Your task to perform on an android device: Add razer naga to the cart on target.com, then select checkout. Image 0: 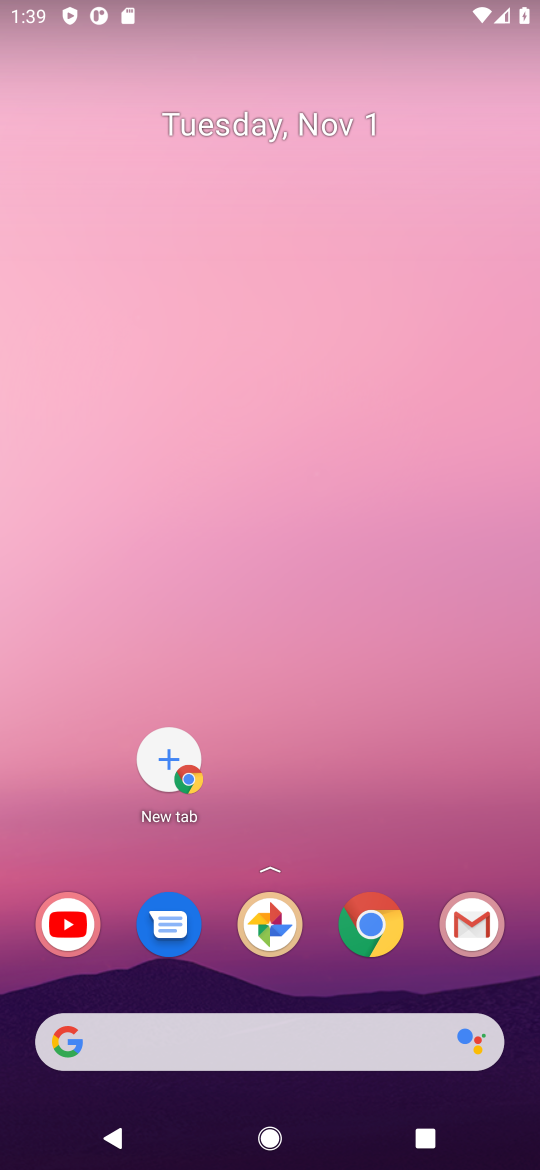
Step 0: click (374, 921)
Your task to perform on an android device: Add razer naga to the cart on target.com, then select checkout. Image 1: 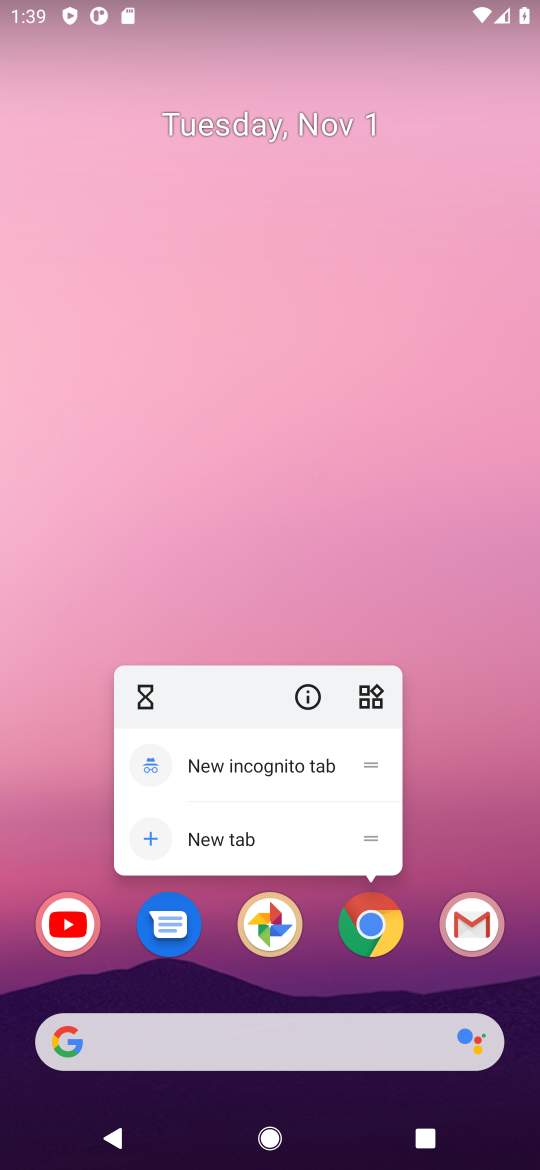
Step 1: click (372, 916)
Your task to perform on an android device: Add razer naga to the cart on target.com, then select checkout. Image 2: 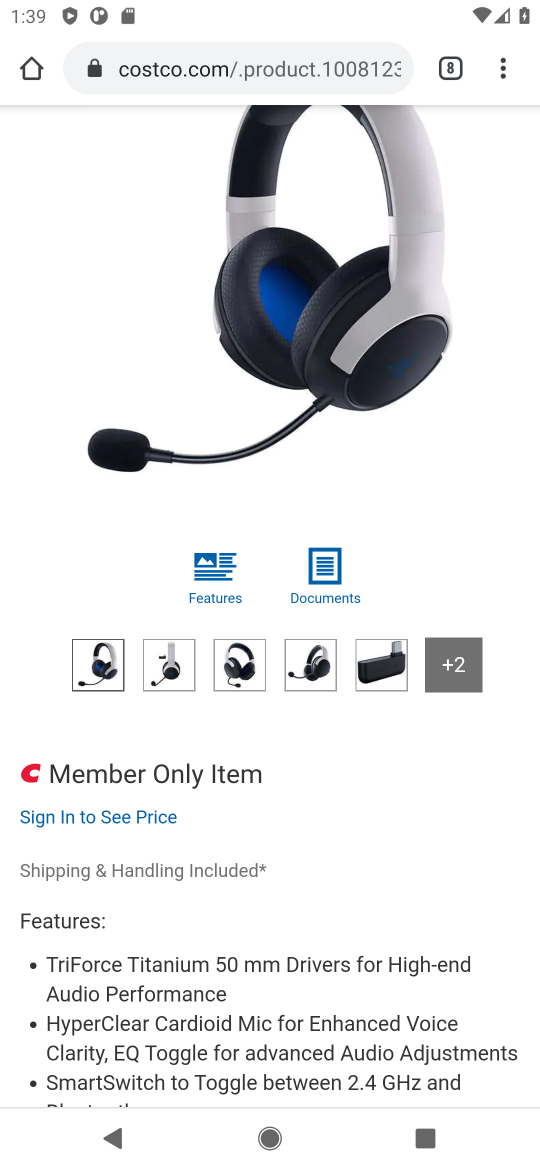
Step 2: click (282, 69)
Your task to perform on an android device: Add razer naga to the cart on target.com, then select checkout. Image 3: 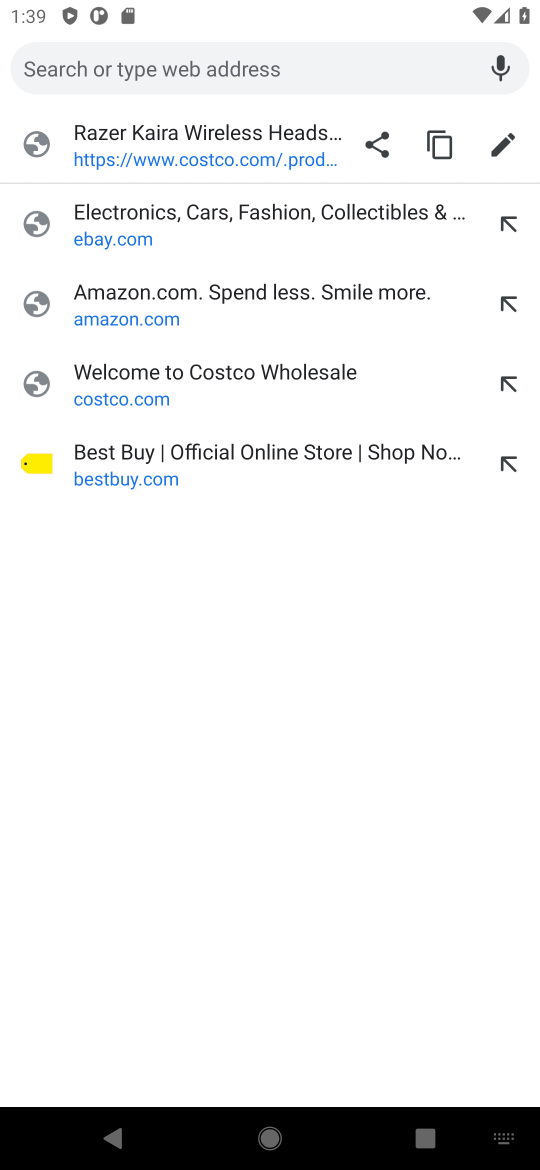
Step 3: type "target .com"
Your task to perform on an android device: Add razer naga to the cart on target.com, then select checkout. Image 4: 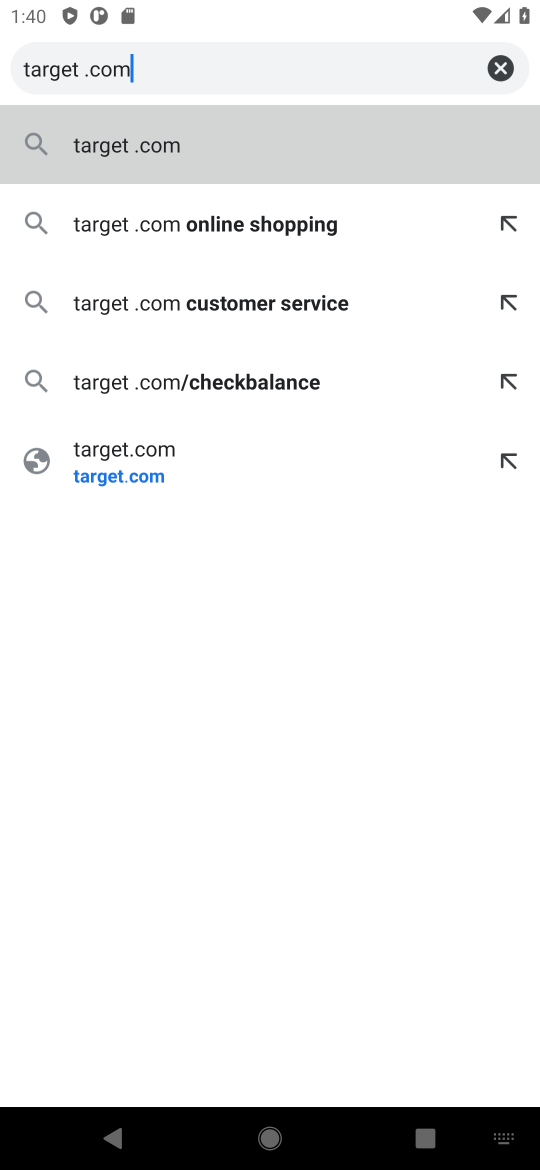
Step 4: click (165, 465)
Your task to perform on an android device: Add razer naga to the cart on target.com, then select checkout. Image 5: 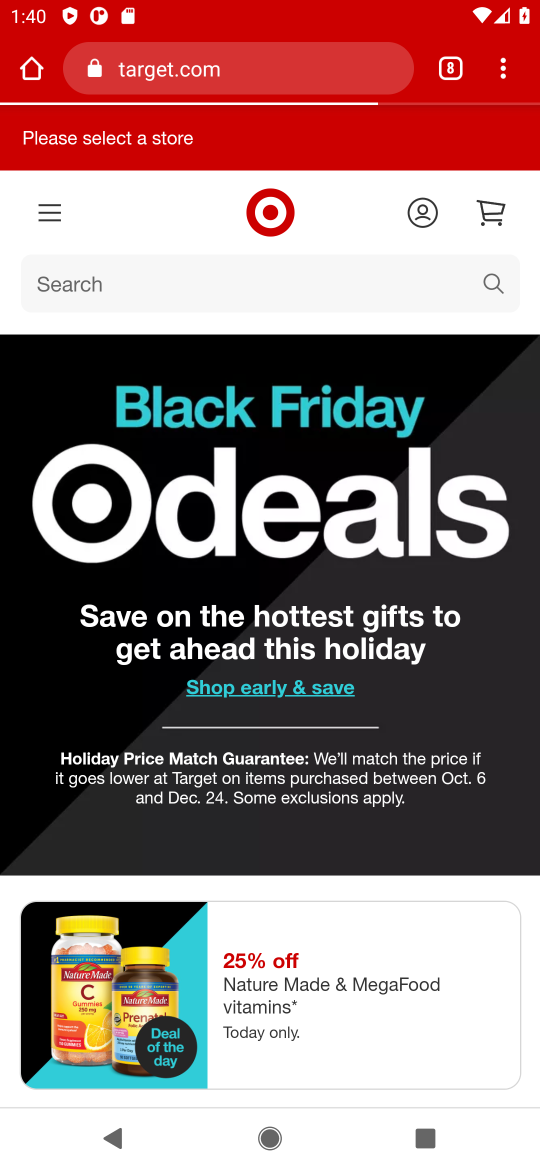
Step 5: click (184, 281)
Your task to perform on an android device: Add razer naga to the cart on target.com, then select checkout. Image 6: 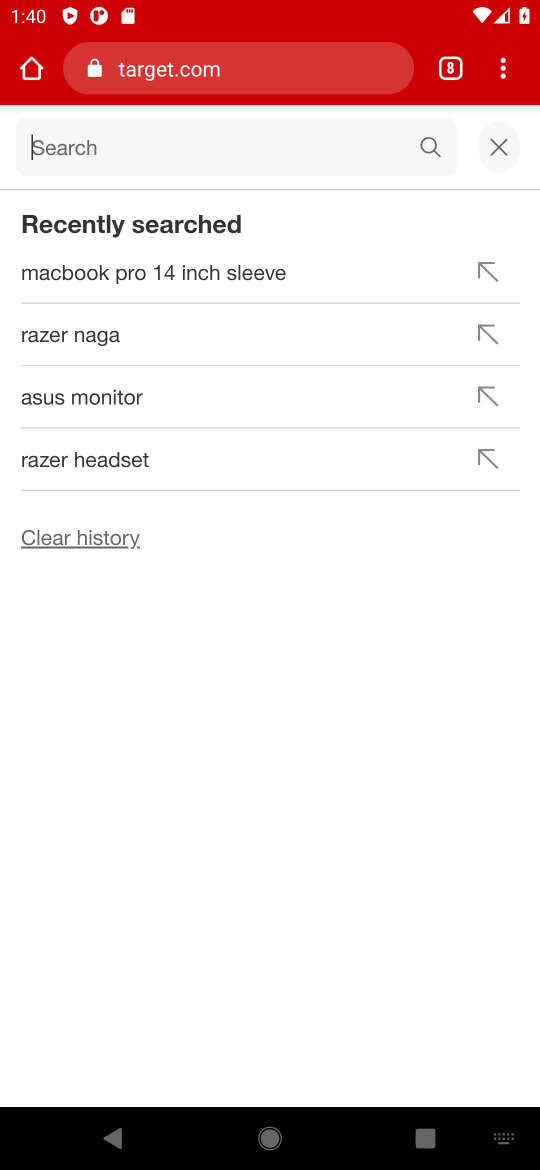
Step 6: type "razer naga"
Your task to perform on an android device: Add razer naga to the cart on target.com, then select checkout. Image 7: 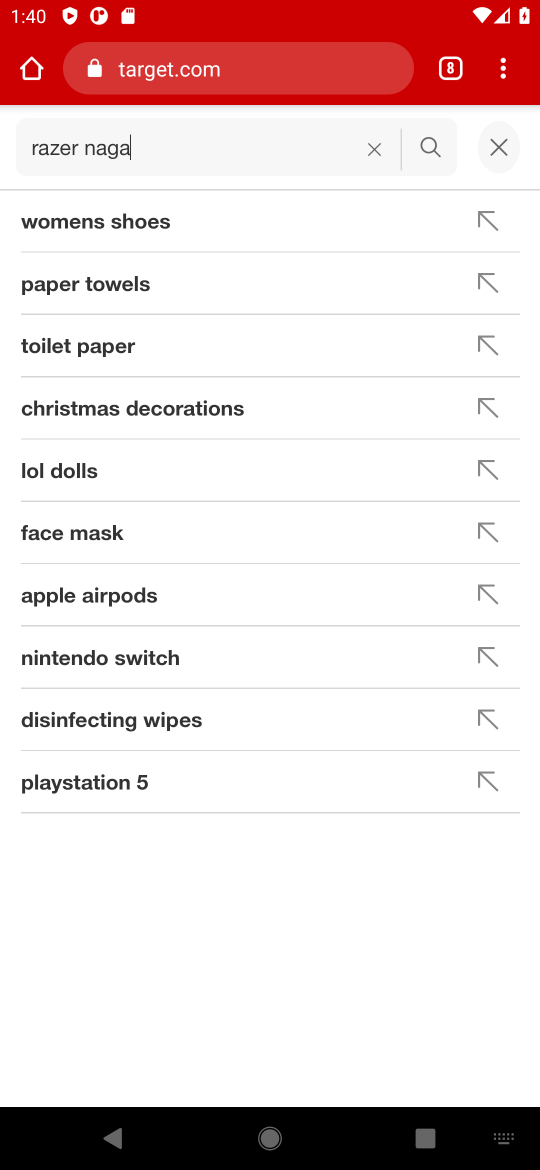
Step 7: type ""
Your task to perform on an android device: Add razer naga to the cart on target.com, then select checkout. Image 8: 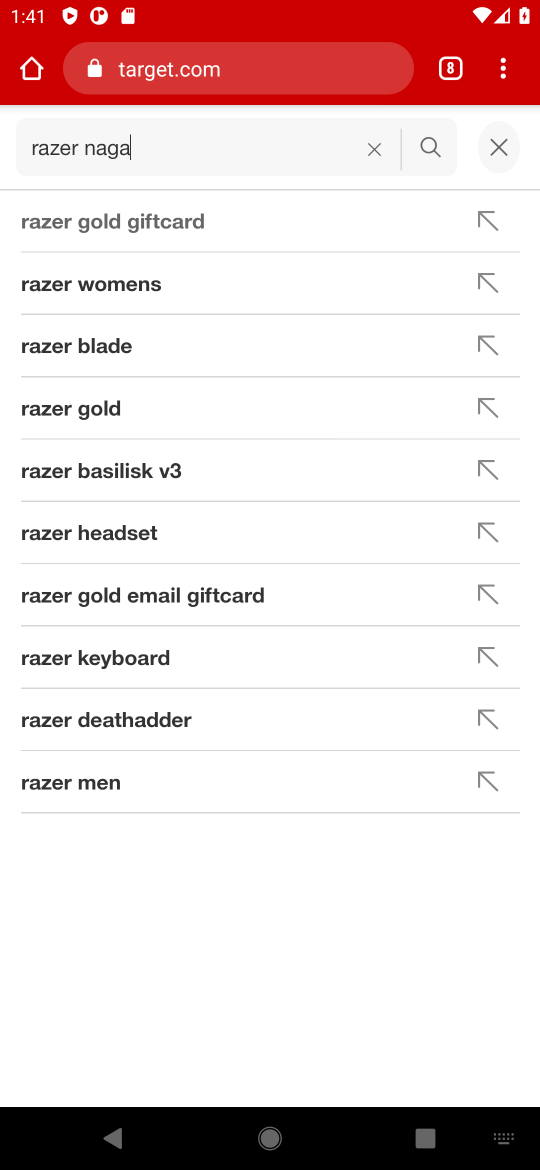
Step 8: click (419, 142)
Your task to perform on an android device: Add razer naga to the cart on target.com, then select checkout. Image 9: 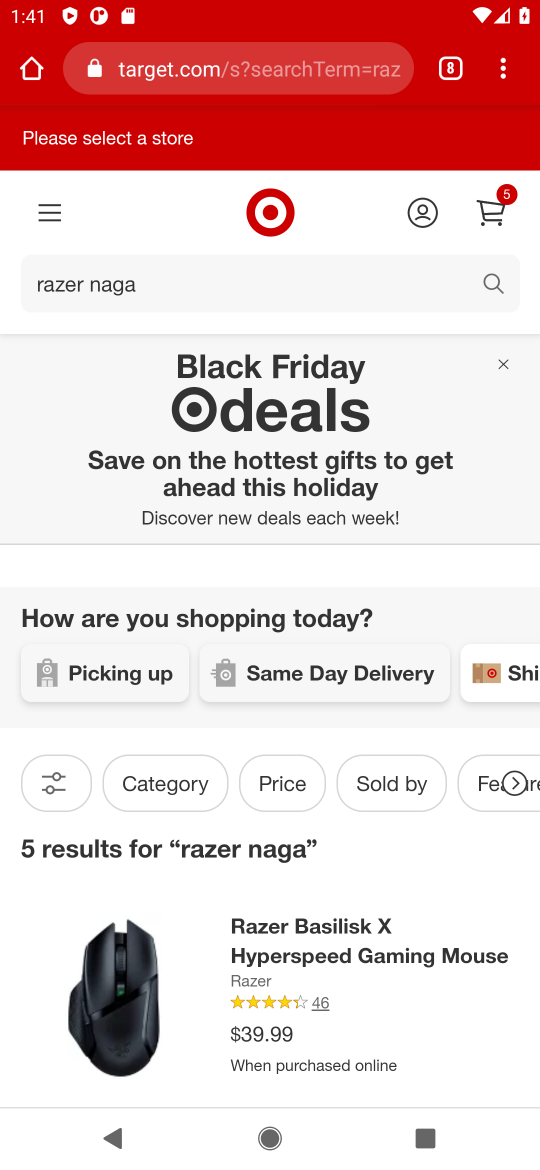
Step 9: drag from (391, 955) to (374, 283)
Your task to perform on an android device: Add razer naga to the cart on target.com, then select checkout. Image 10: 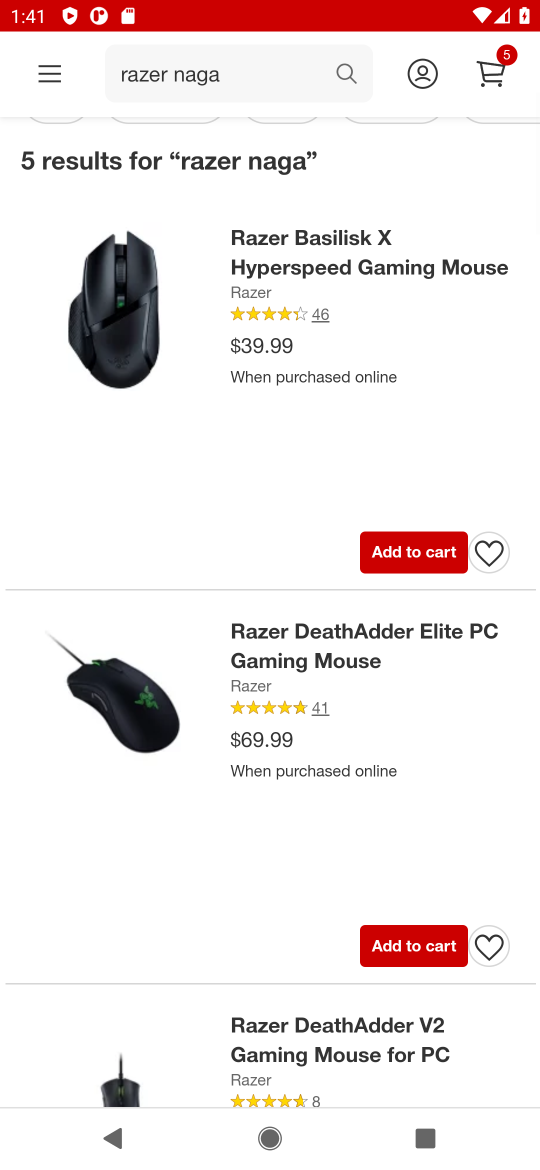
Step 10: drag from (240, 399) to (238, 938)
Your task to perform on an android device: Add razer naga to the cart on target.com, then select checkout. Image 11: 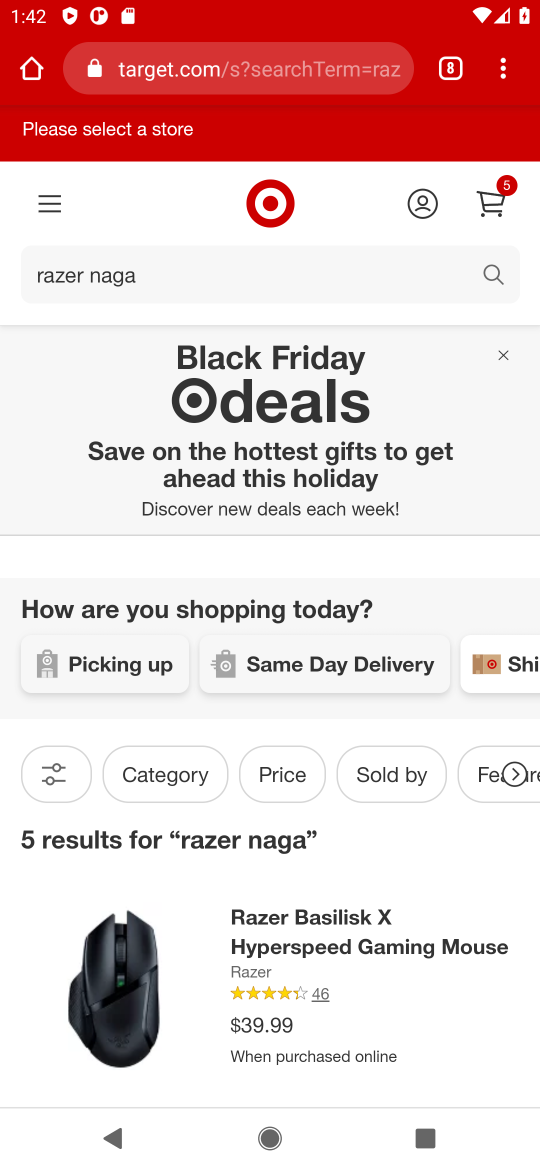
Step 11: click (500, 270)
Your task to perform on an android device: Add razer naga to the cart on target.com, then select checkout. Image 12: 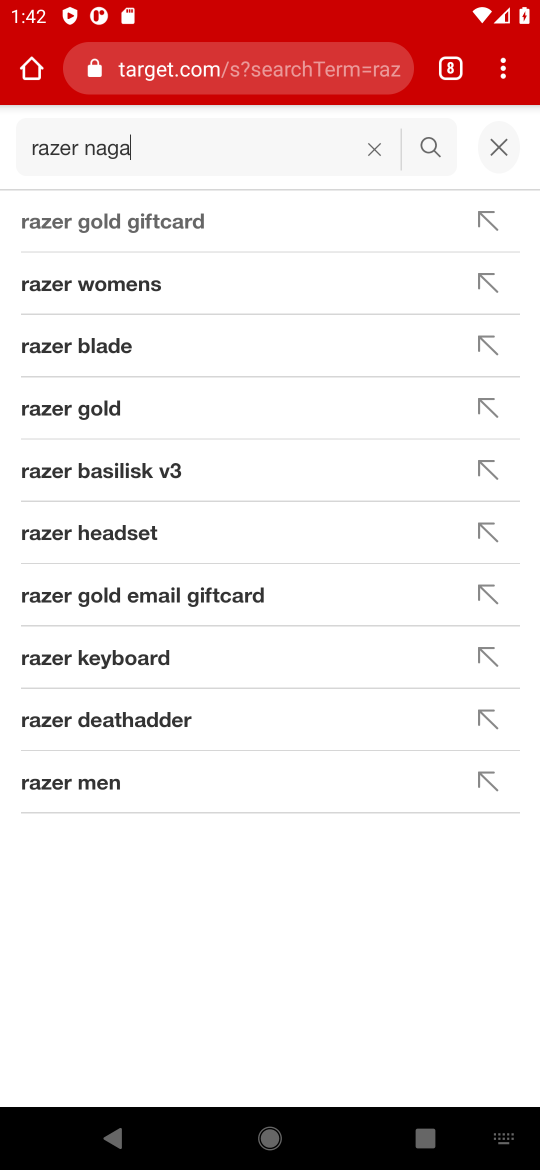
Step 12: click (38, 780)
Your task to perform on an android device: Add razer naga to the cart on target.com, then select checkout. Image 13: 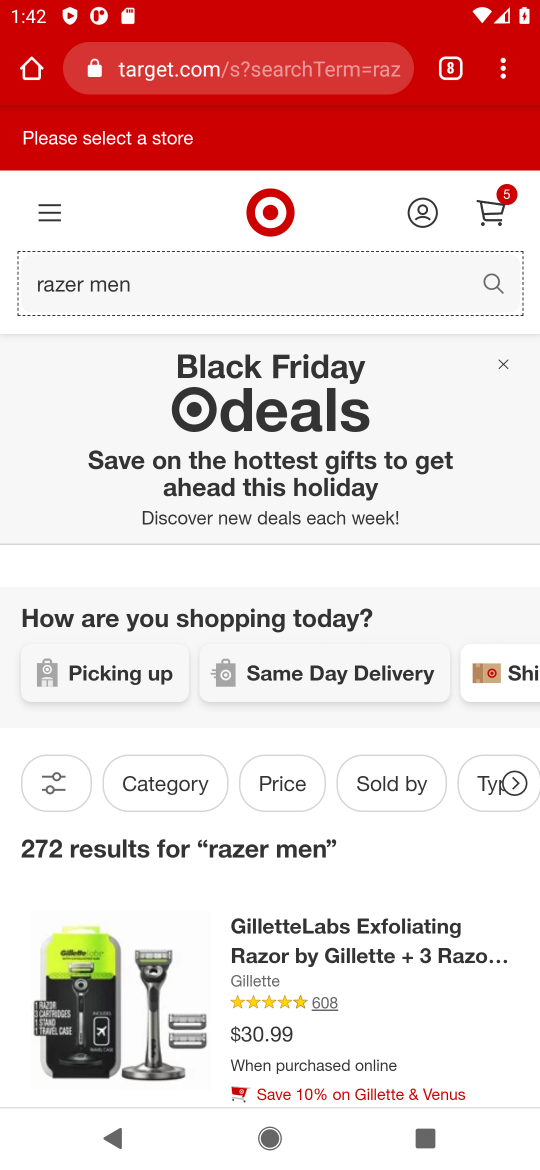
Step 13: drag from (328, 996) to (393, 315)
Your task to perform on an android device: Add razer naga to the cart on target.com, then select checkout. Image 14: 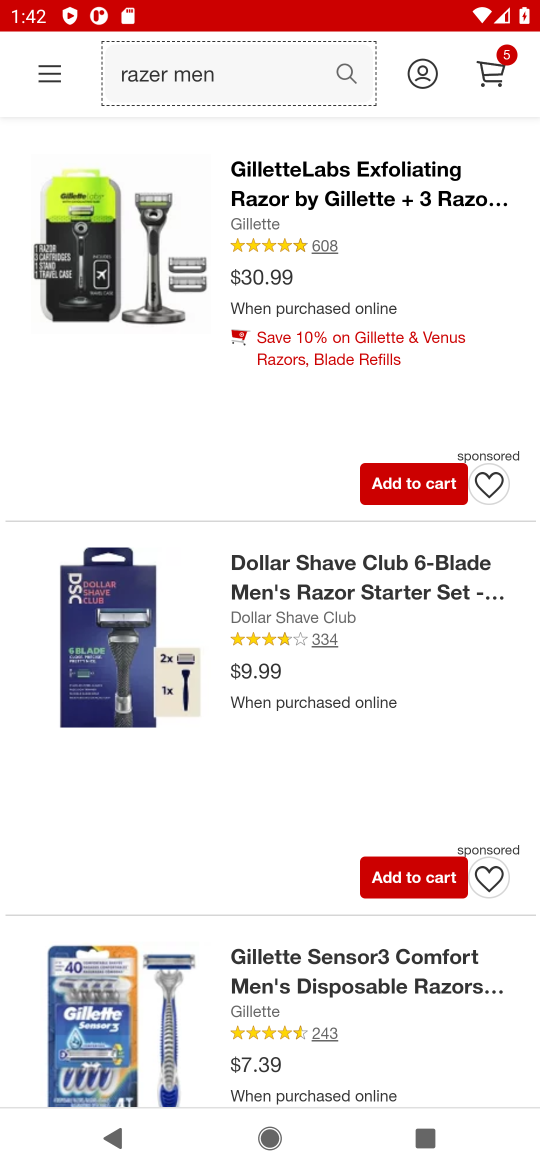
Step 14: click (74, 707)
Your task to perform on an android device: Add razer naga to the cart on target.com, then select checkout. Image 15: 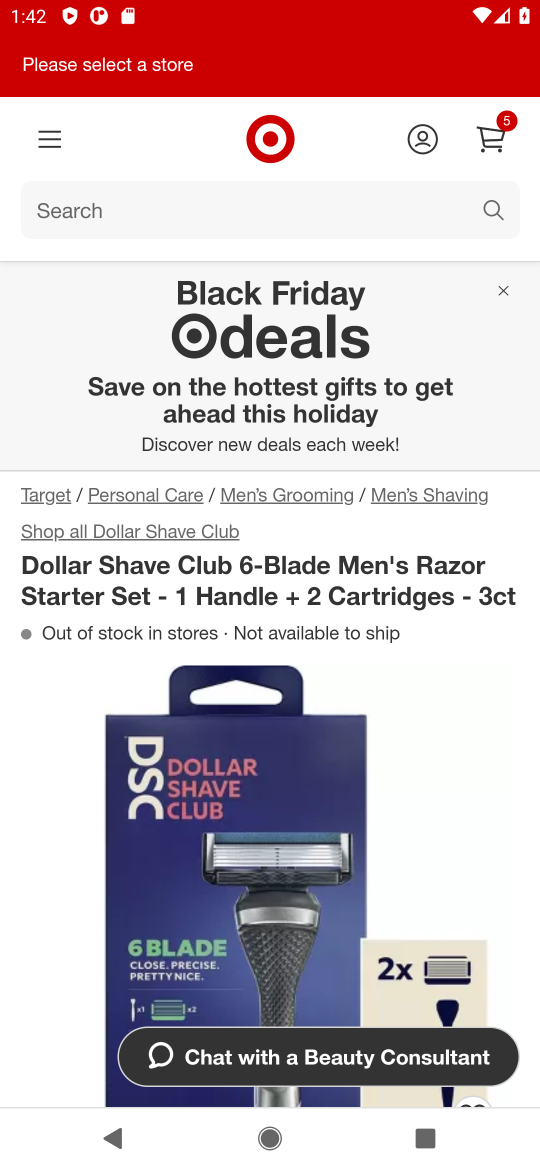
Step 15: drag from (254, 869) to (370, 306)
Your task to perform on an android device: Add razer naga to the cart on target.com, then select checkout. Image 16: 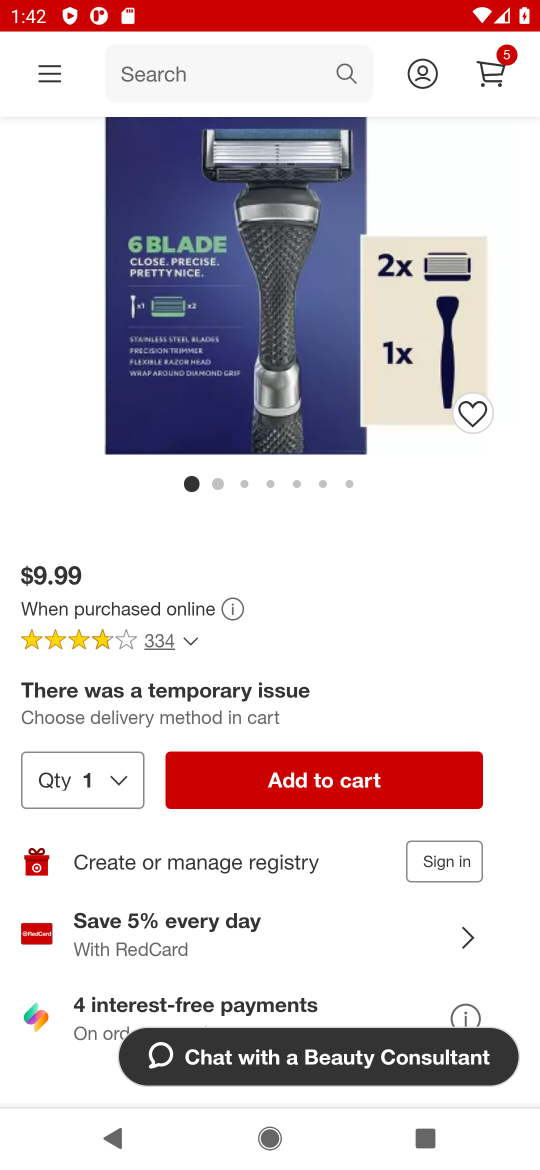
Step 16: click (271, 780)
Your task to perform on an android device: Add razer naga to the cart on target.com, then select checkout. Image 17: 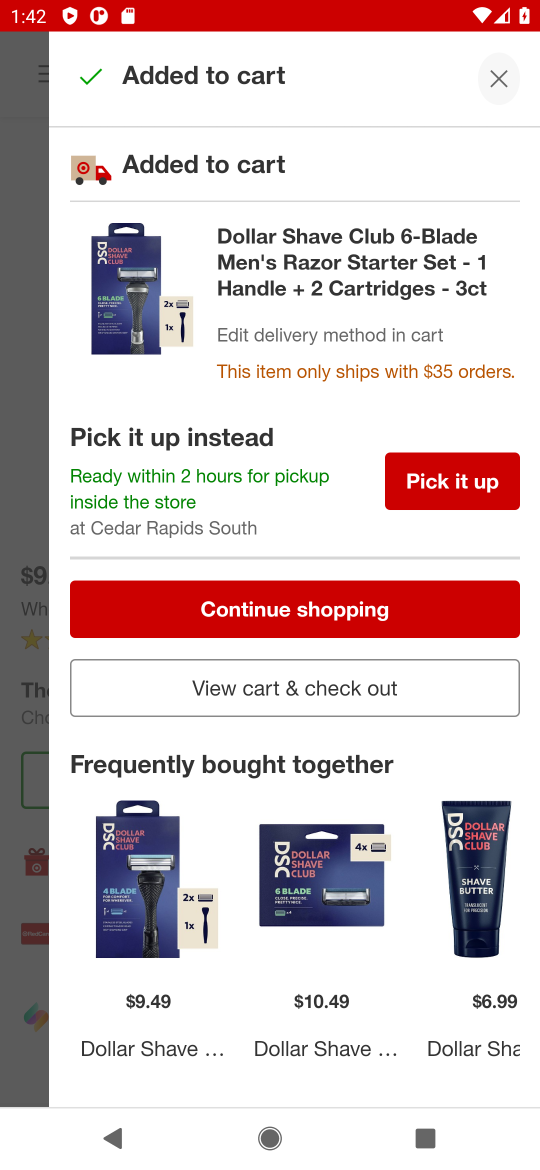
Step 17: click (257, 691)
Your task to perform on an android device: Add razer naga to the cart on target.com, then select checkout. Image 18: 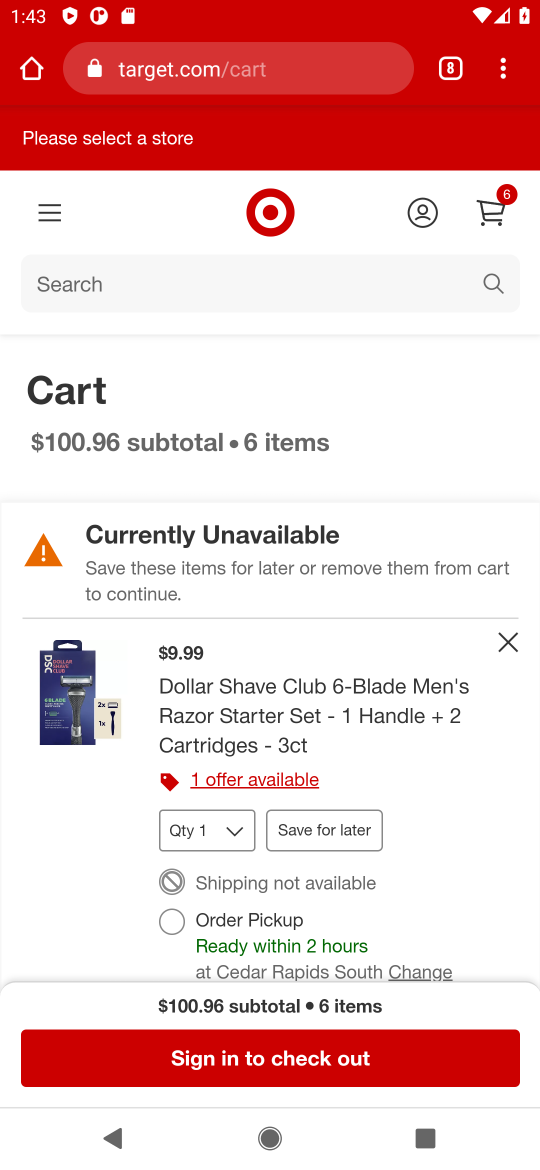
Step 18: drag from (340, 869) to (343, 438)
Your task to perform on an android device: Add razer naga to the cart on target.com, then select checkout. Image 19: 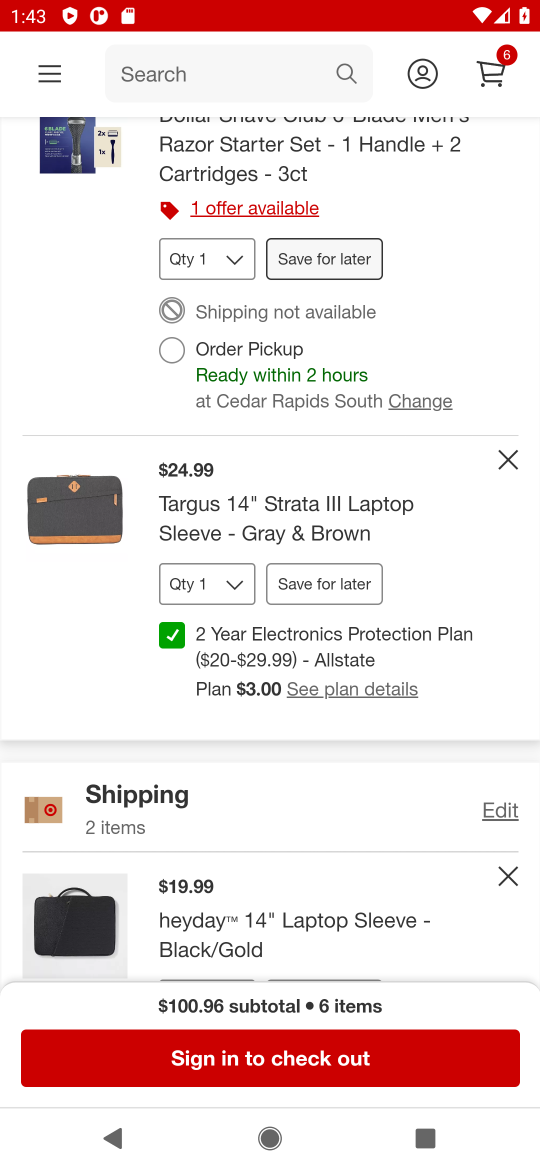
Step 19: click (503, 866)
Your task to perform on an android device: Add razer naga to the cart on target.com, then select checkout. Image 20: 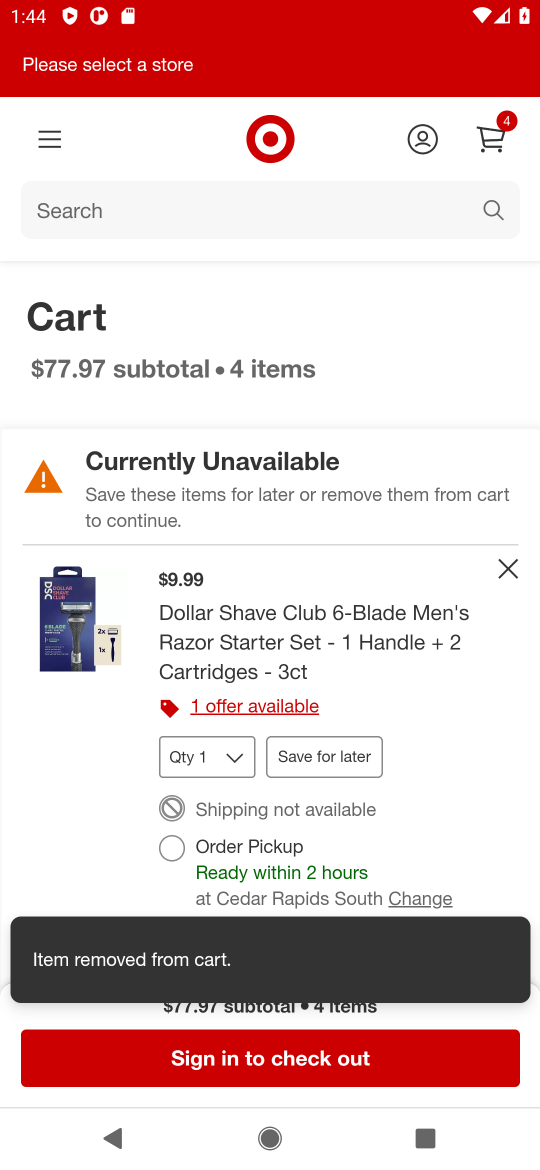
Step 20: drag from (337, 826) to (438, 203)
Your task to perform on an android device: Add razer naga to the cart on target.com, then select checkout. Image 21: 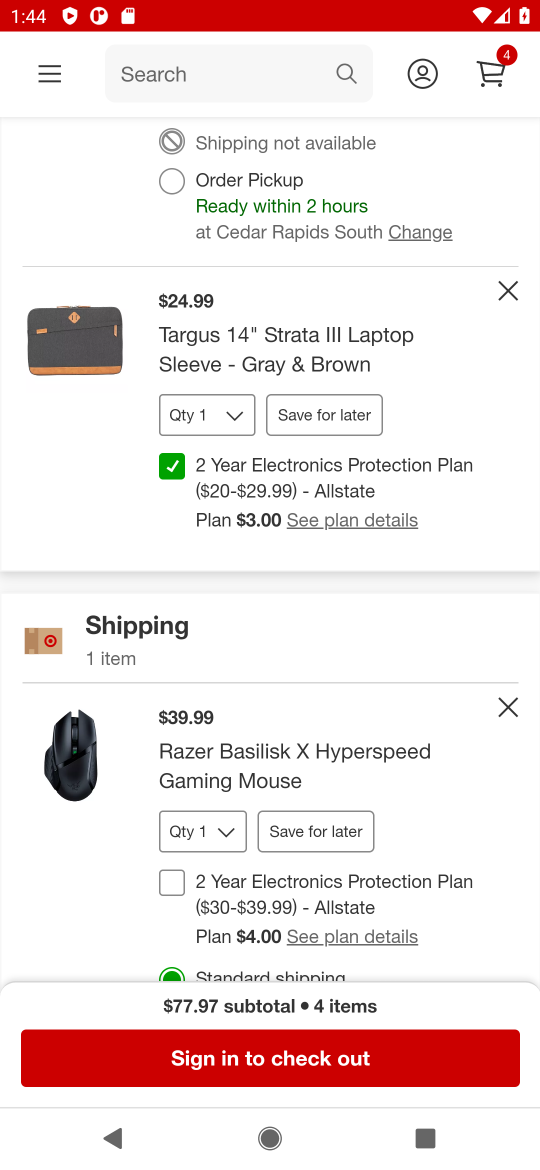
Step 21: click (223, 1067)
Your task to perform on an android device: Add razer naga to the cart on target.com, then select checkout. Image 22: 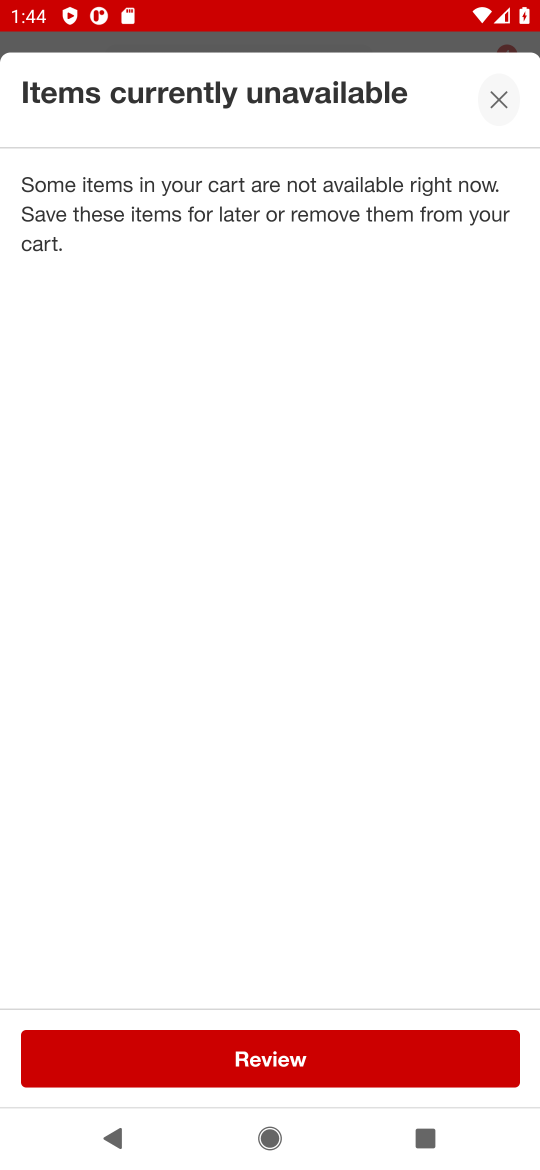
Step 22: click (504, 94)
Your task to perform on an android device: Add razer naga to the cart on target.com, then select checkout. Image 23: 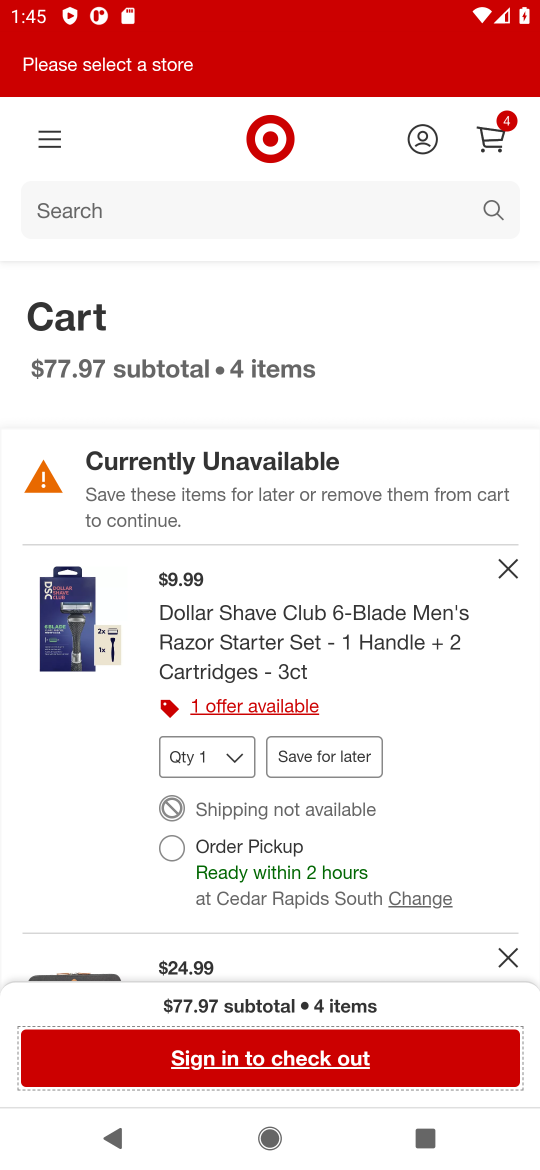
Step 23: click (338, 1059)
Your task to perform on an android device: Add razer naga to the cart on target.com, then select checkout. Image 24: 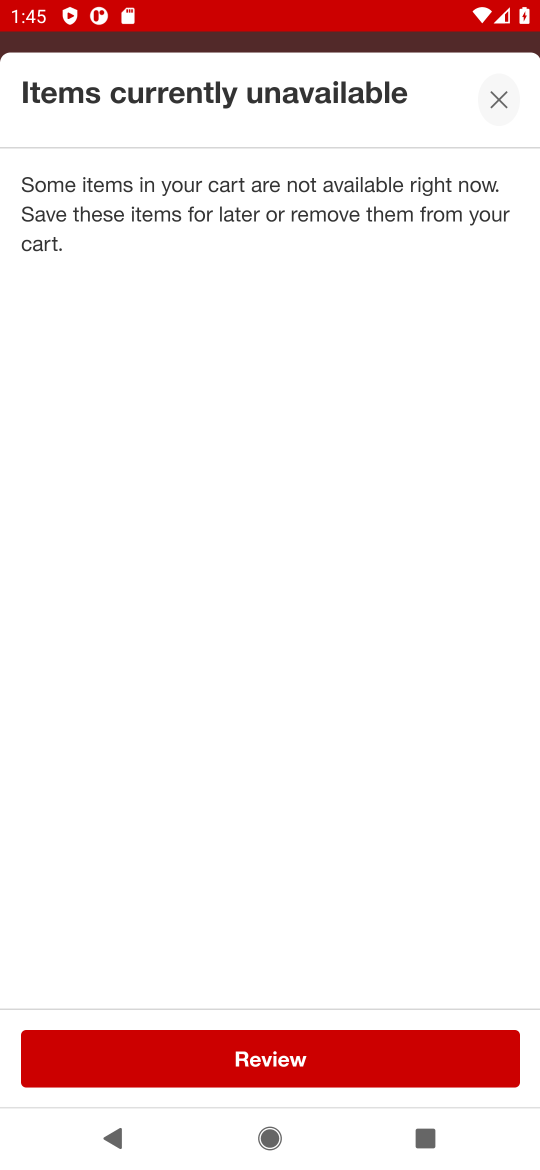
Step 24: click (498, 102)
Your task to perform on an android device: Add razer naga to the cart on target.com, then select checkout. Image 25: 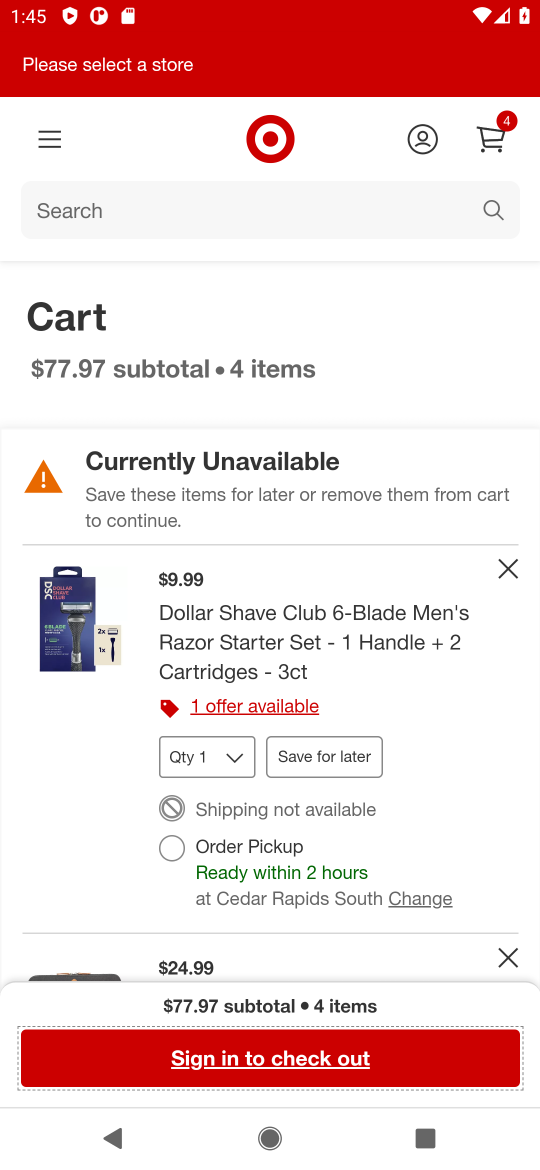
Step 25: press home button
Your task to perform on an android device: Add razer naga to the cart on target.com, then select checkout. Image 26: 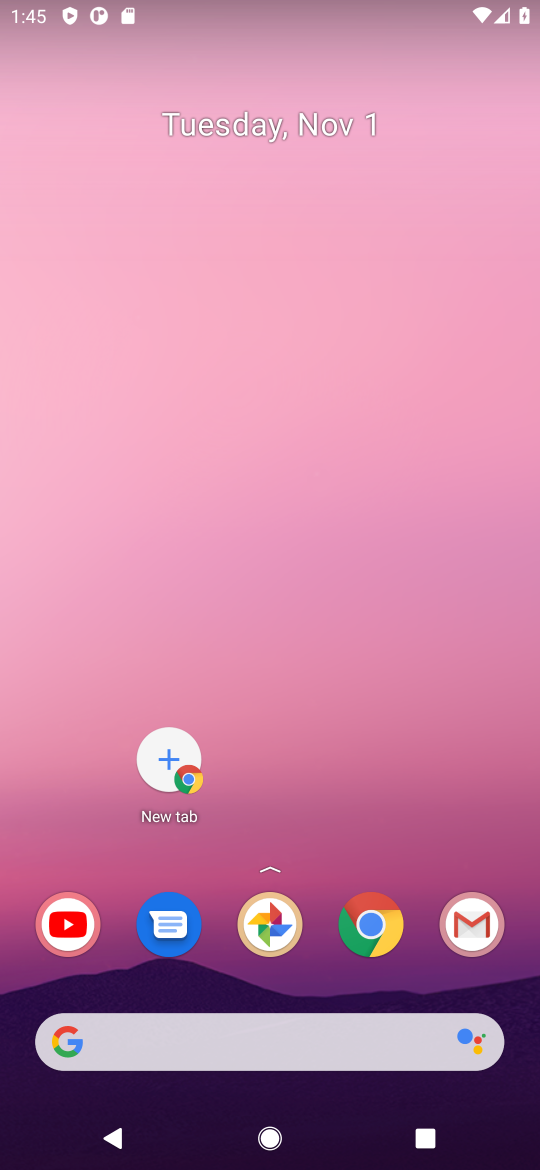
Step 26: click (373, 914)
Your task to perform on an android device: Add razer naga to the cart on target.com, then select checkout. Image 27: 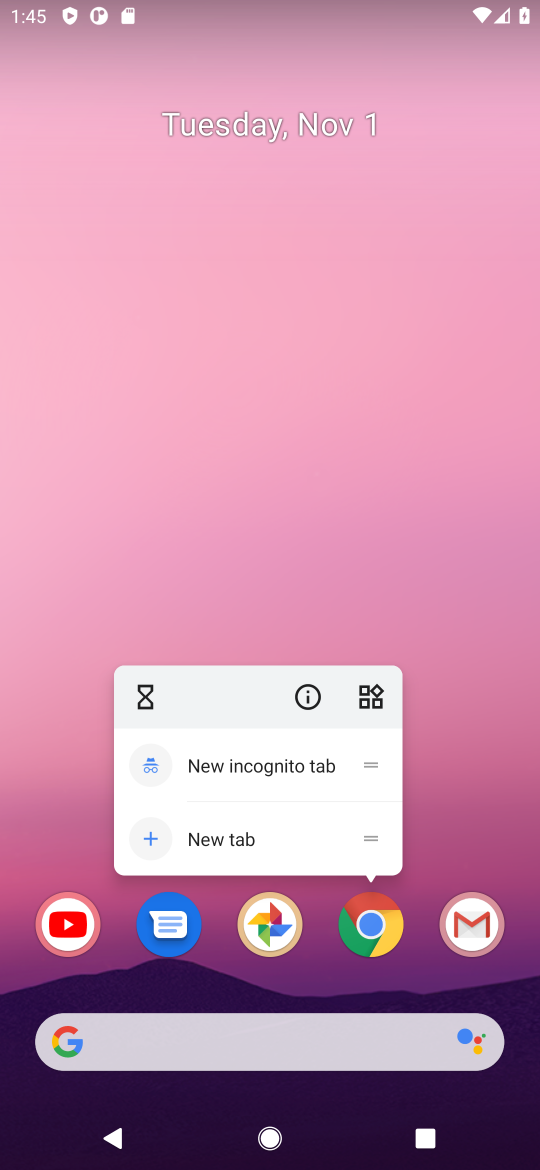
Step 27: press home button
Your task to perform on an android device: Add razer naga to the cart on target.com, then select checkout. Image 28: 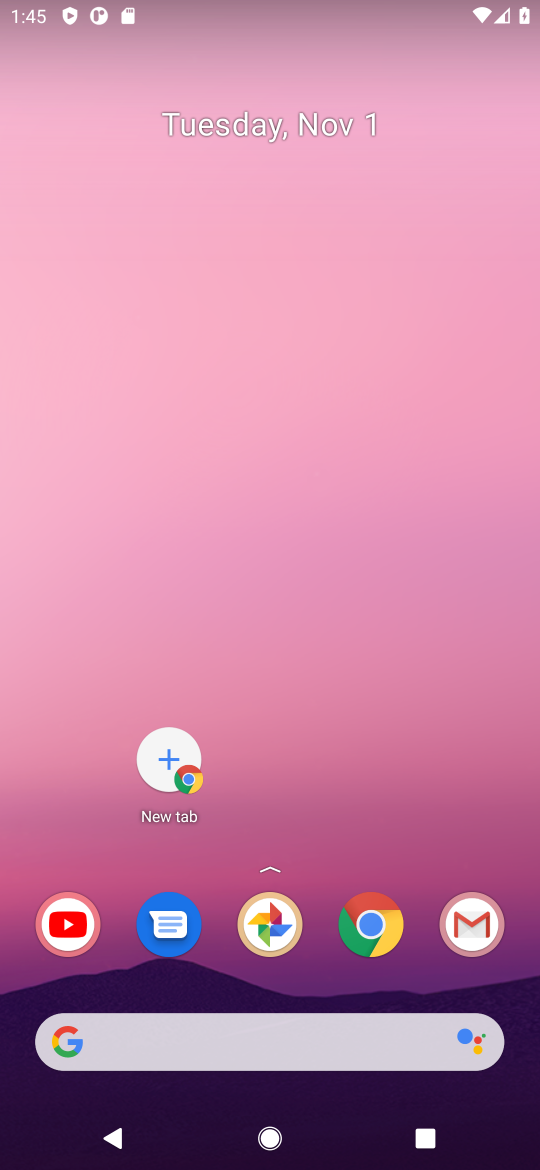
Step 28: click (382, 935)
Your task to perform on an android device: Add razer naga to the cart on target.com, then select checkout. Image 29: 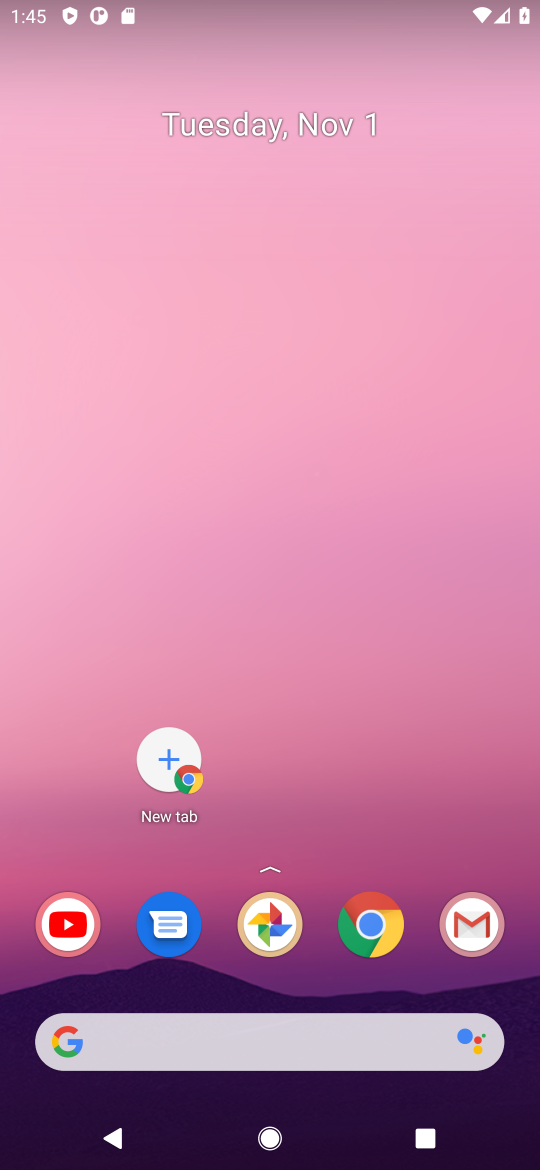
Step 29: click (384, 934)
Your task to perform on an android device: Add razer naga to the cart on target.com, then select checkout. Image 30: 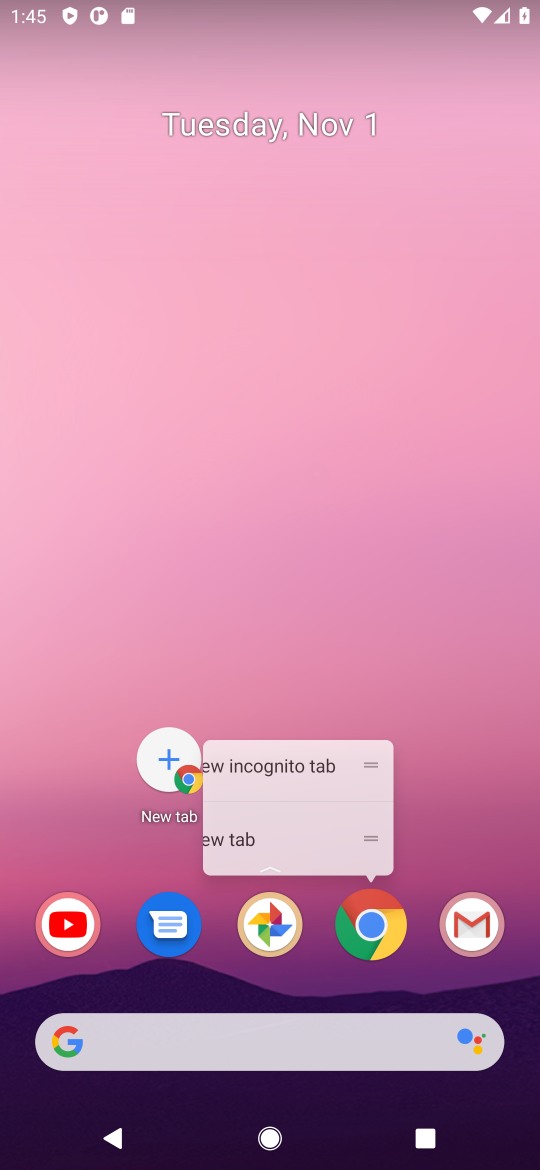
Step 30: click (382, 934)
Your task to perform on an android device: Add razer naga to the cart on target.com, then select checkout. Image 31: 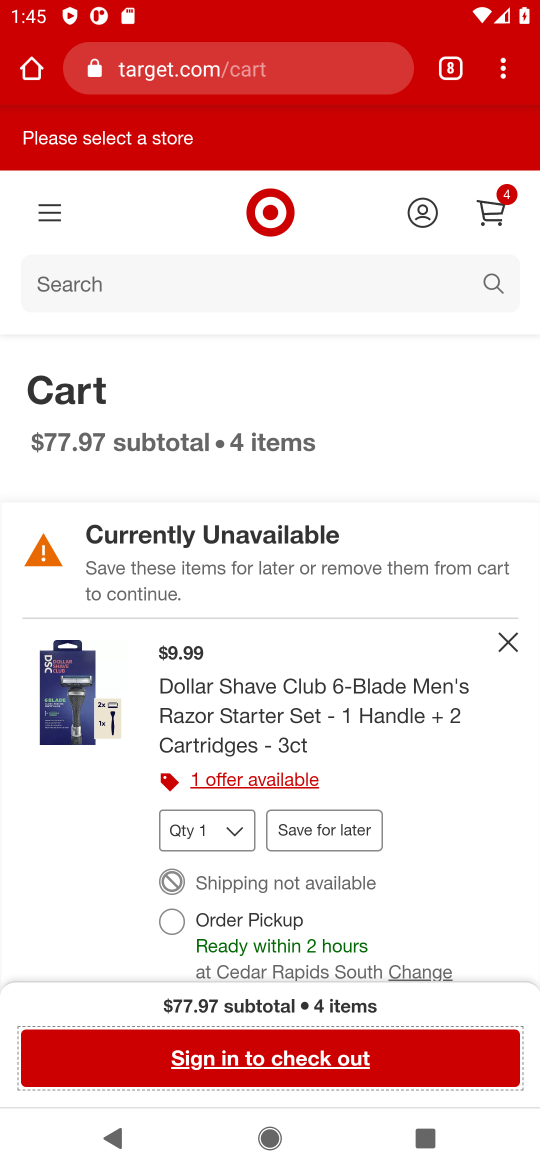
Step 31: click (182, 72)
Your task to perform on an android device: Add razer naga to the cart on target.com, then select checkout. Image 32: 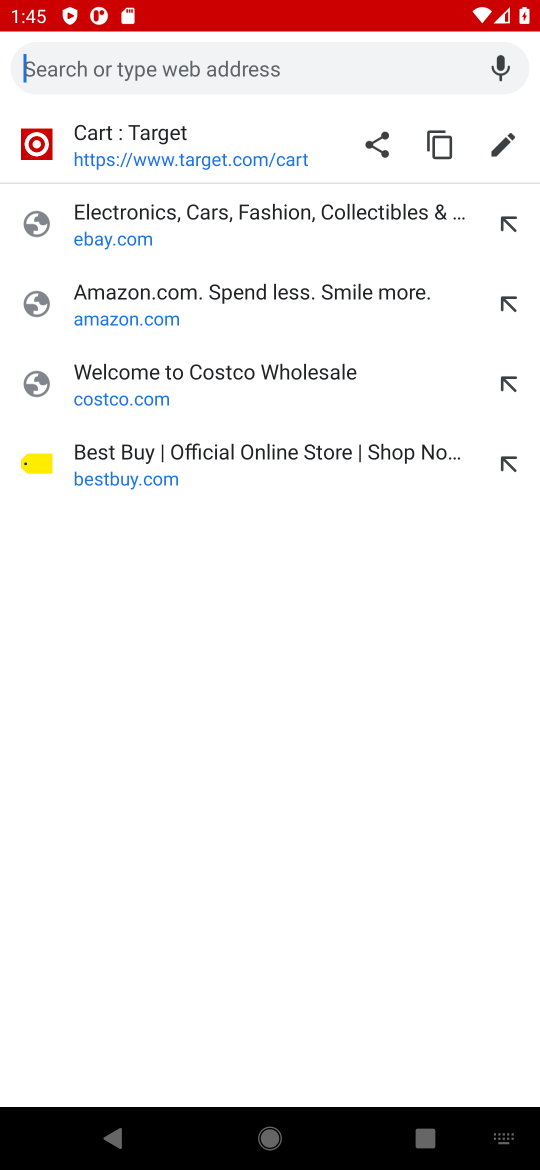
Step 32: click (178, 161)
Your task to perform on an android device: Add razer naga to the cart on target.com, then select checkout. Image 33: 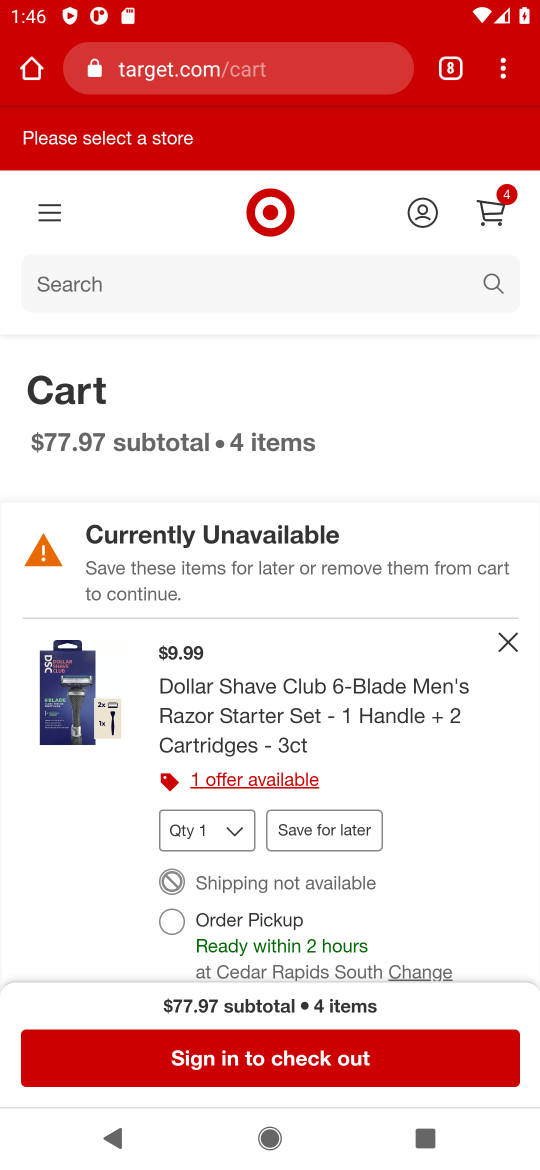
Step 33: click (316, 287)
Your task to perform on an android device: Add razer naga to the cart on target.com, then select checkout. Image 34: 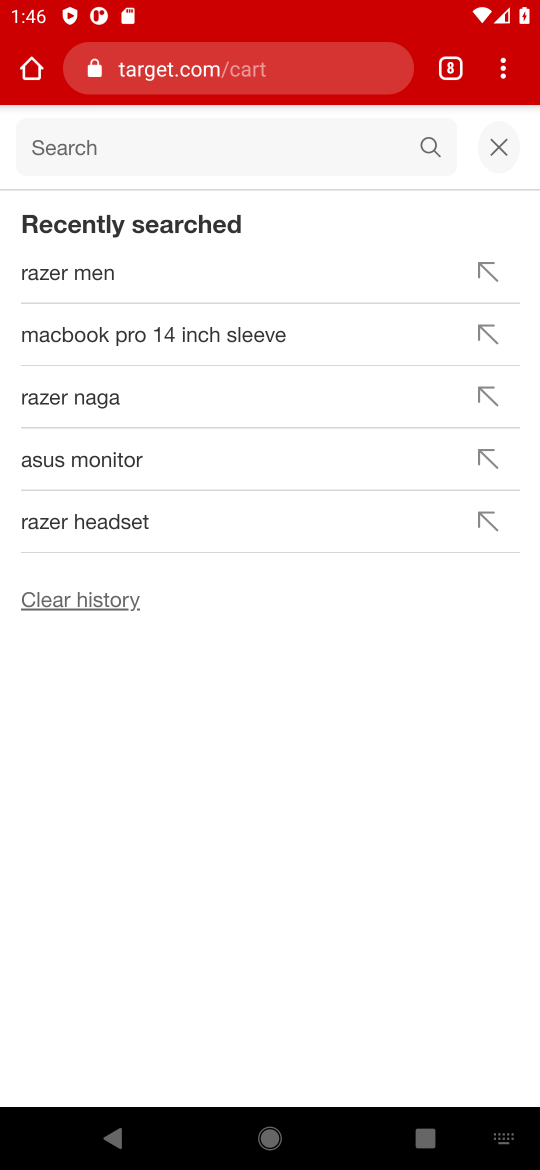
Step 34: task complete